Your task to perform on an android device: clear all cookies in the chrome app Image 0: 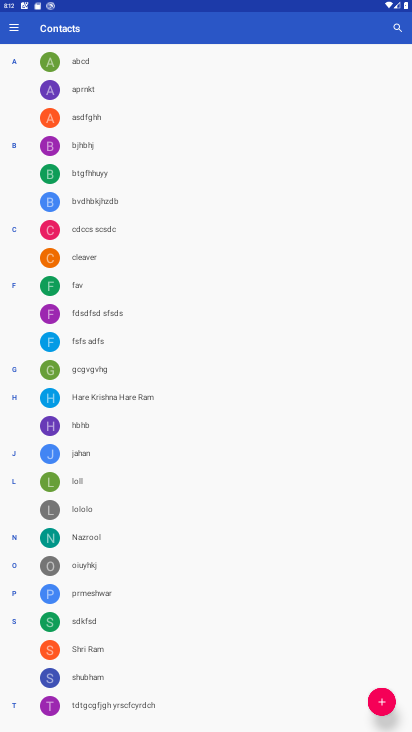
Step 0: press home button
Your task to perform on an android device: clear all cookies in the chrome app Image 1: 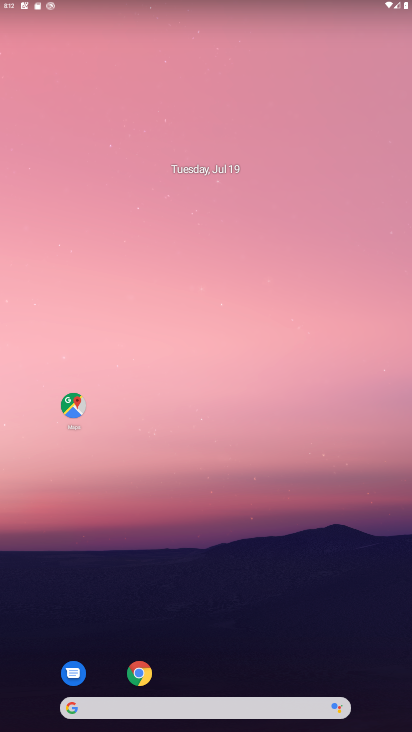
Step 1: drag from (157, 711) to (208, 129)
Your task to perform on an android device: clear all cookies in the chrome app Image 2: 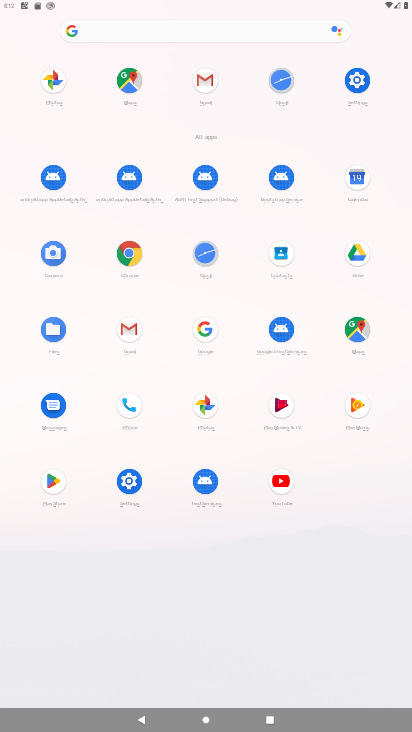
Step 2: click (136, 255)
Your task to perform on an android device: clear all cookies in the chrome app Image 3: 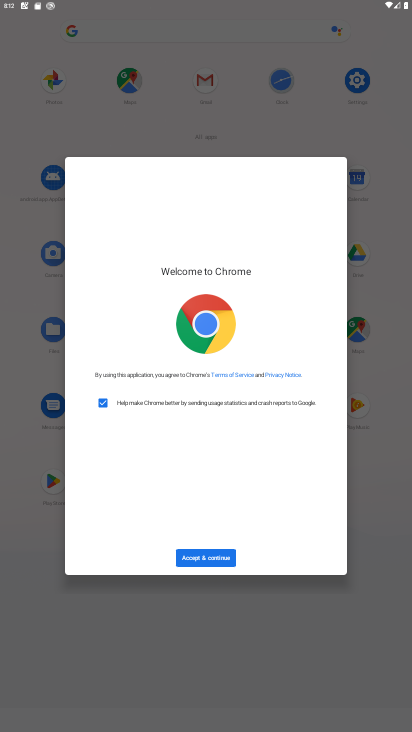
Step 3: click (213, 554)
Your task to perform on an android device: clear all cookies in the chrome app Image 4: 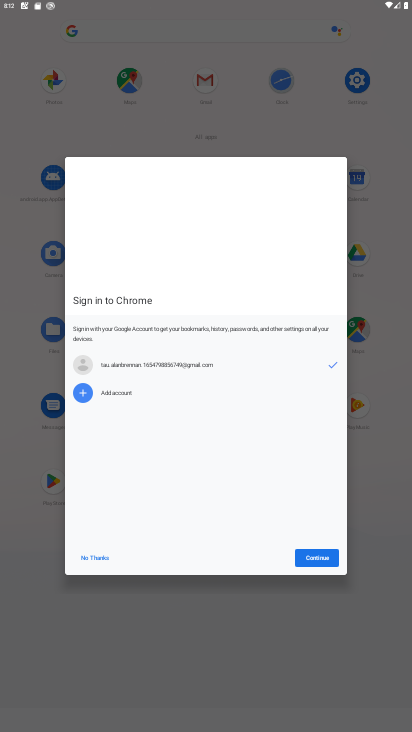
Step 4: click (98, 557)
Your task to perform on an android device: clear all cookies in the chrome app Image 5: 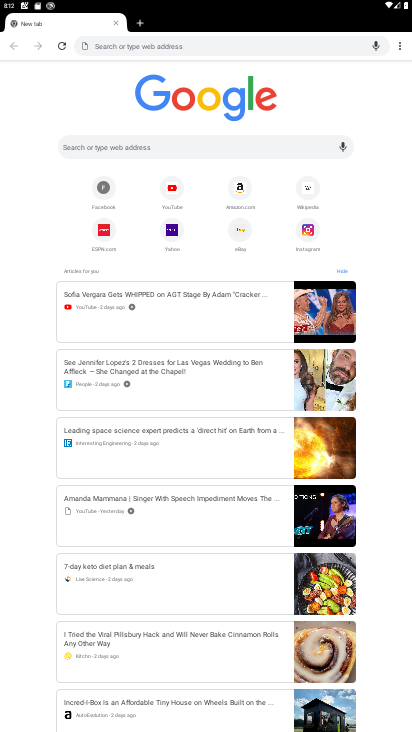
Step 5: click (399, 48)
Your task to perform on an android device: clear all cookies in the chrome app Image 6: 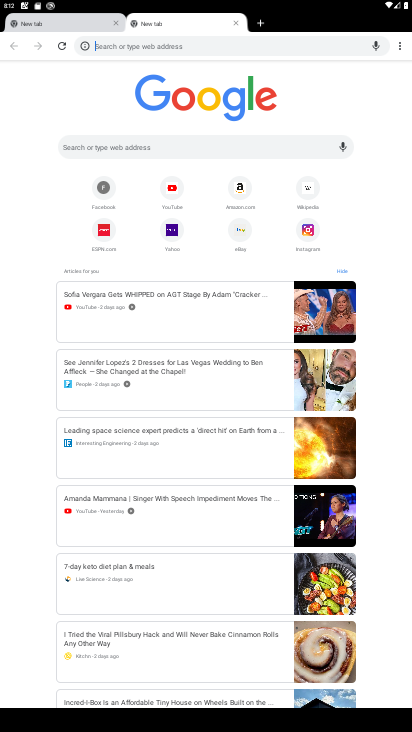
Step 6: click (397, 47)
Your task to perform on an android device: clear all cookies in the chrome app Image 7: 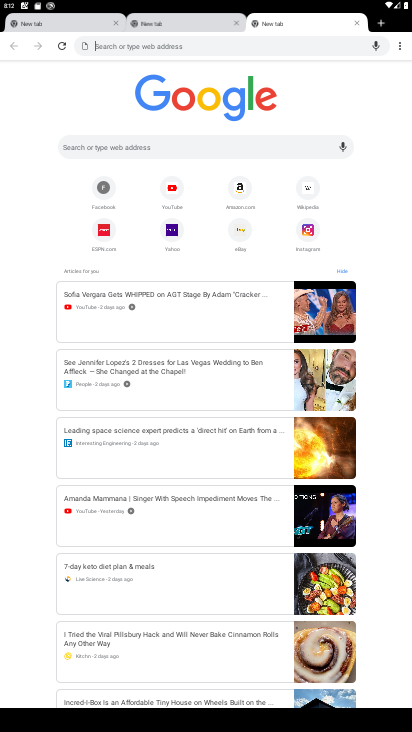
Step 7: drag from (400, 42) to (323, 222)
Your task to perform on an android device: clear all cookies in the chrome app Image 8: 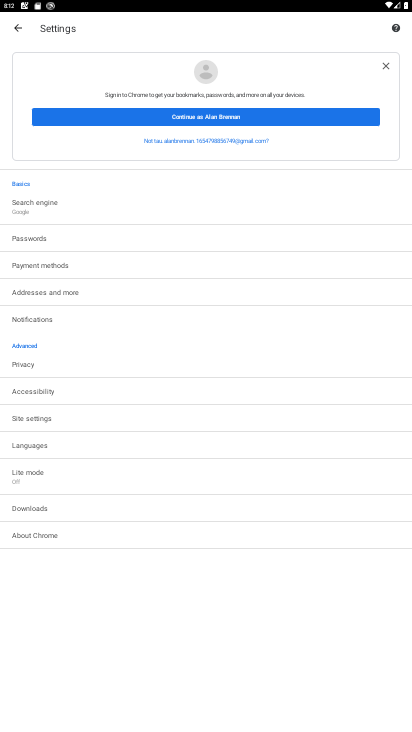
Step 8: click (104, 373)
Your task to perform on an android device: clear all cookies in the chrome app Image 9: 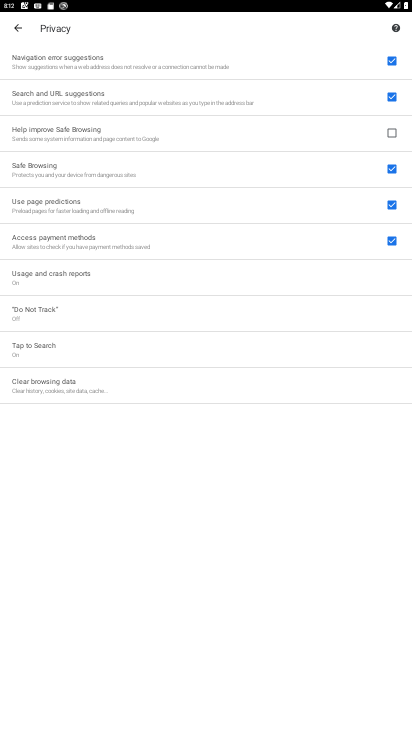
Step 9: click (81, 378)
Your task to perform on an android device: clear all cookies in the chrome app Image 10: 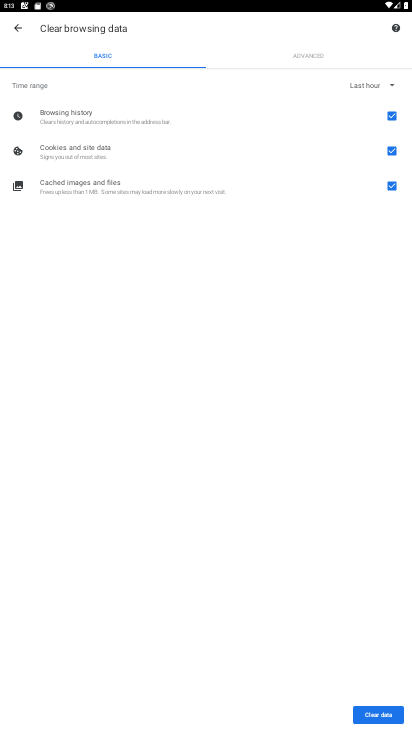
Step 10: click (391, 708)
Your task to perform on an android device: clear all cookies in the chrome app Image 11: 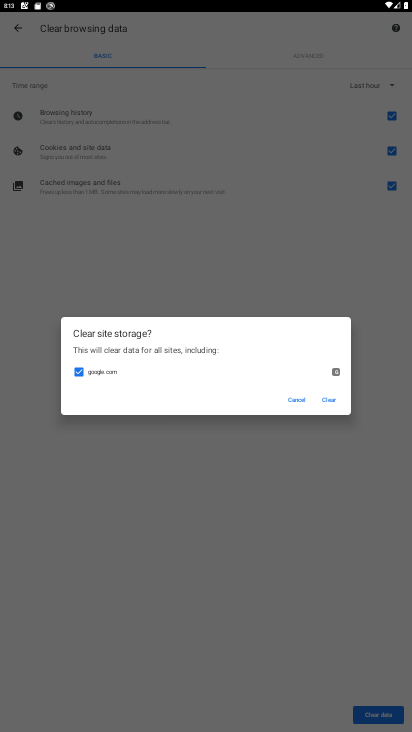
Step 11: click (328, 394)
Your task to perform on an android device: clear all cookies in the chrome app Image 12: 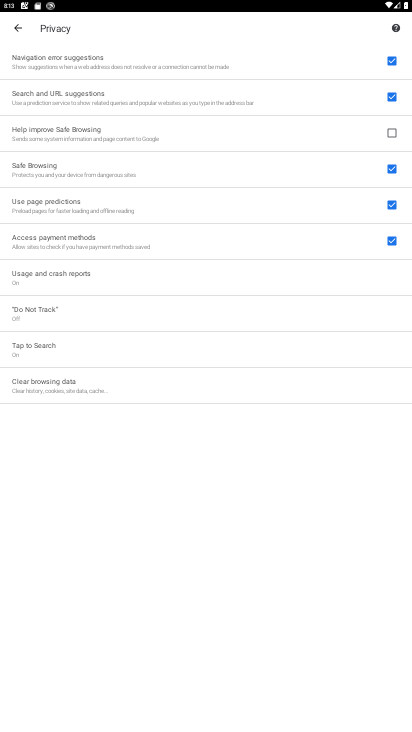
Step 12: task complete